Your task to perform on an android device: open app "Duolingo: language lessons" (install if not already installed) Image 0: 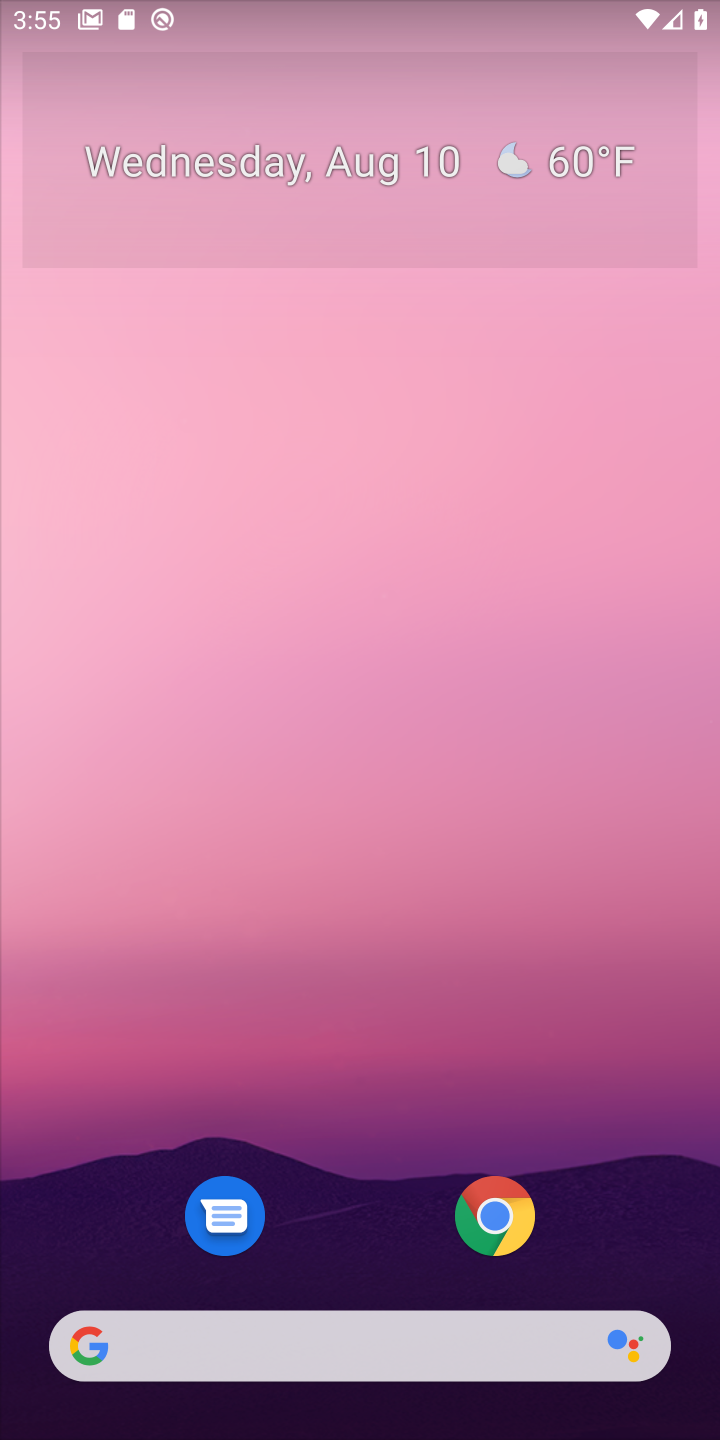
Step 0: drag from (324, 1309) to (672, 1077)
Your task to perform on an android device: open app "Duolingo: language lessons" (install if not already installed) Image 1: 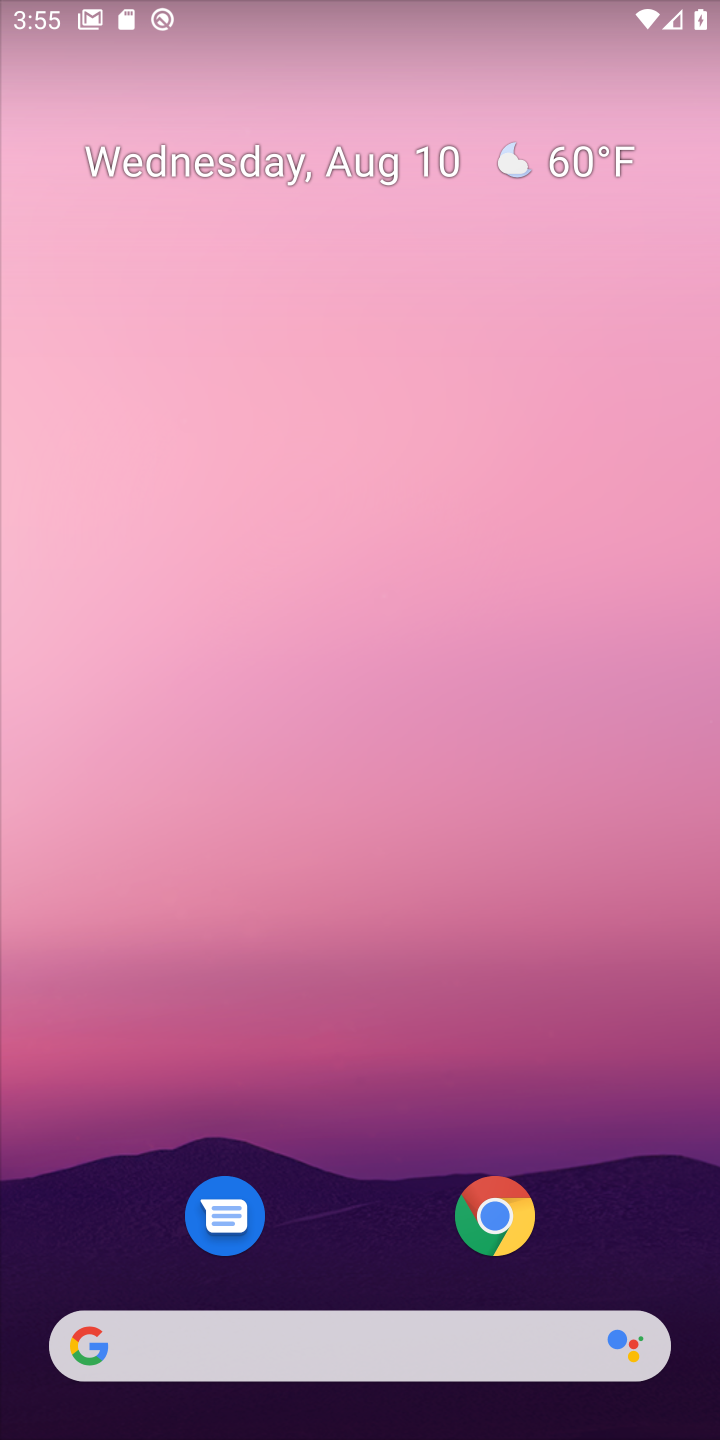
Step 1: drag from (458, 1233) to (405, 2)
Your task to perform on an android device: open app "Duolingo: language lessons" (install if not already installed) Image 2: 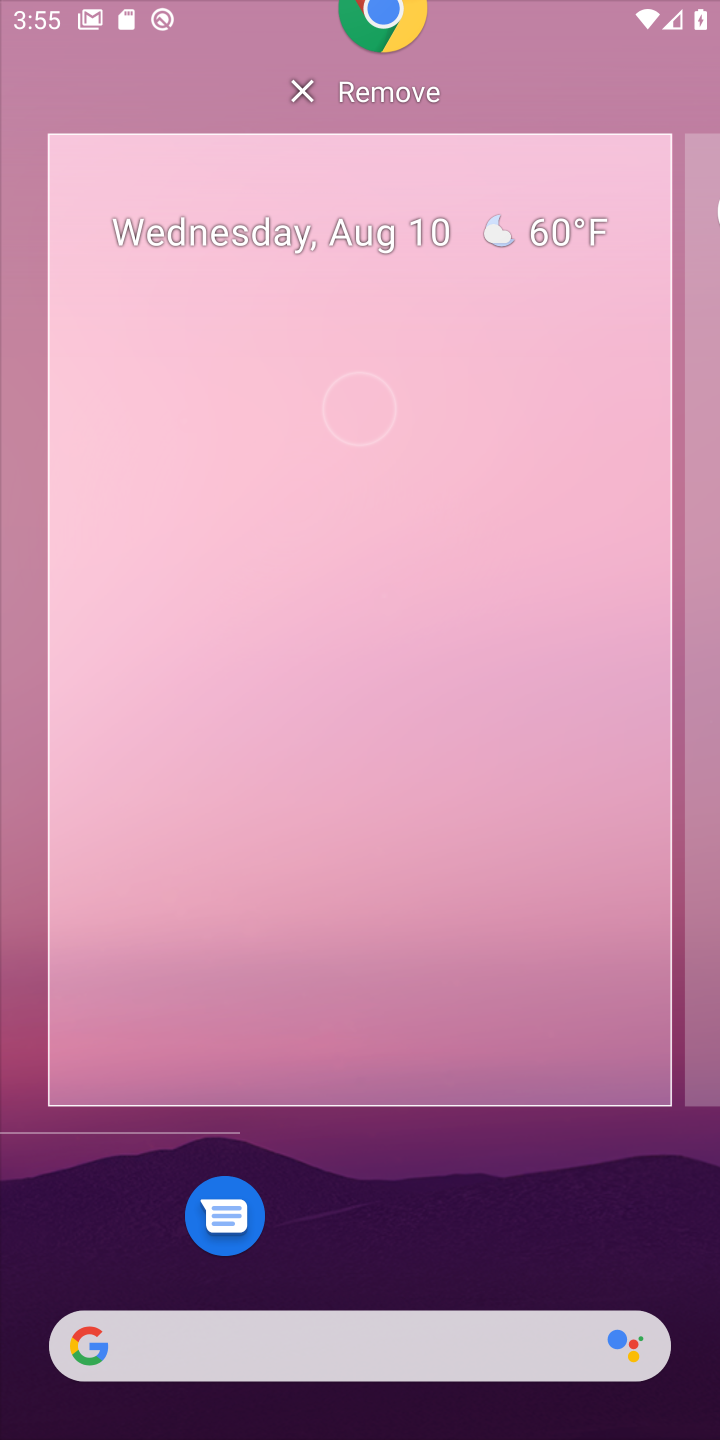
Step 2: click (403, 963)
Your task to perform on an android device: open app "Duolingo: language lessons" (install if not already installed) Image 3: 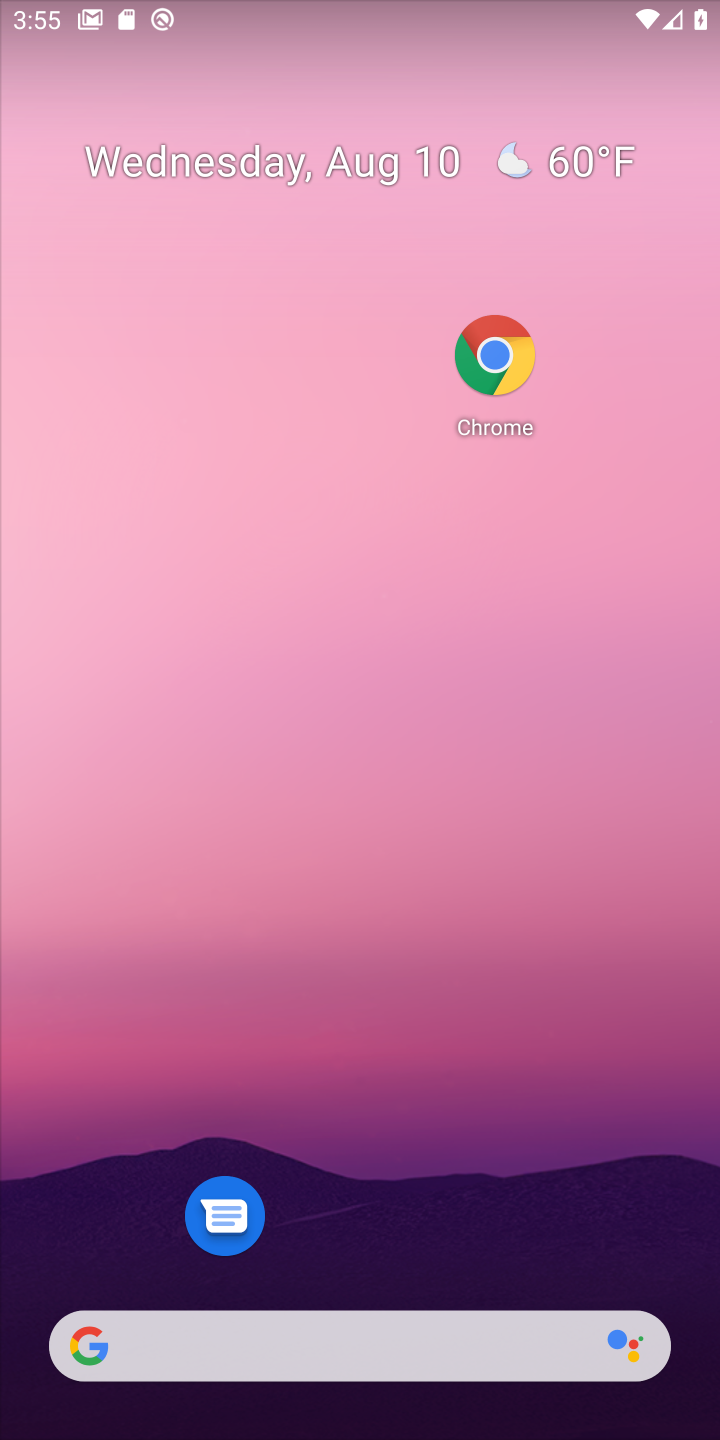
Step 3: drag from (409, 1254) to (431, 24)
Your task to perform on an android device: open app "Duolingo: language lessons" (install if not already installed) Image 4: 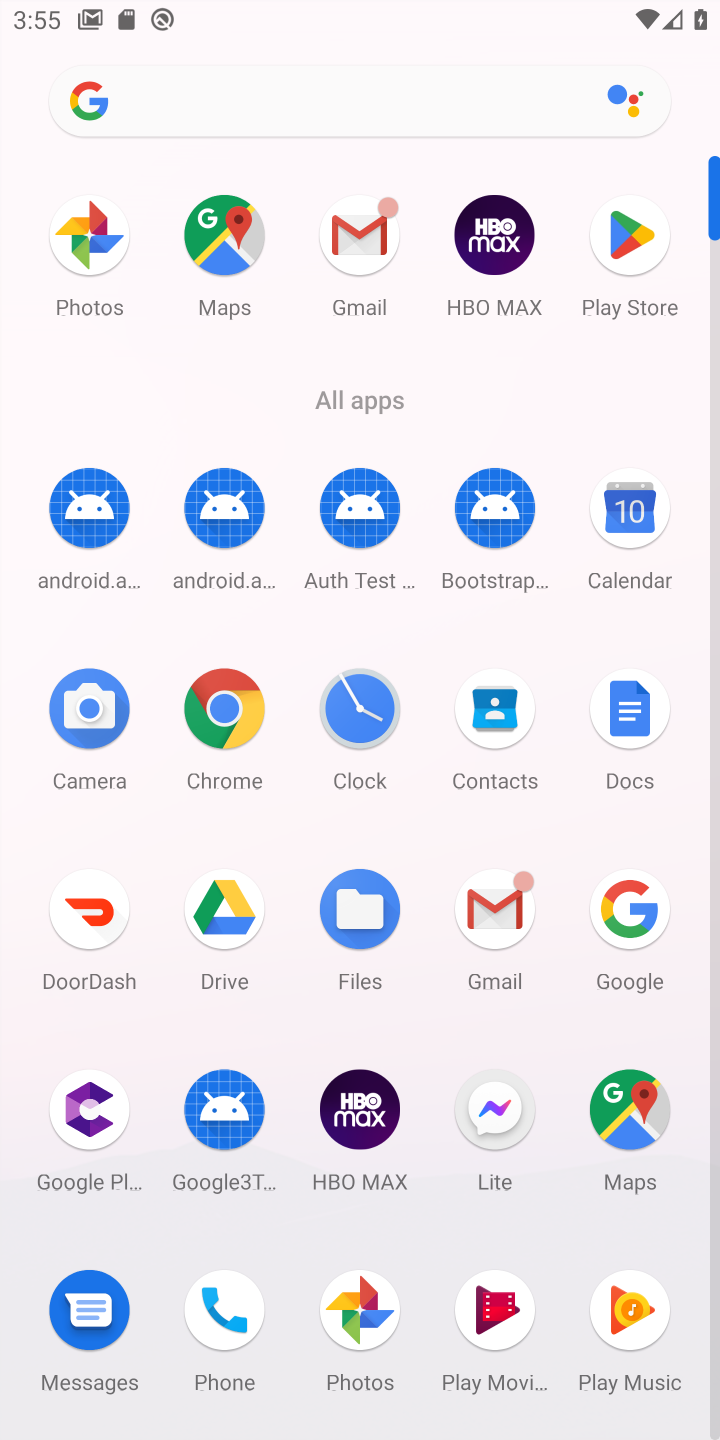
Step 4: click (624, 228)
Your task to perform on an android device: open app "Duolingo: language lessons" (install if not already installed) Image 5: 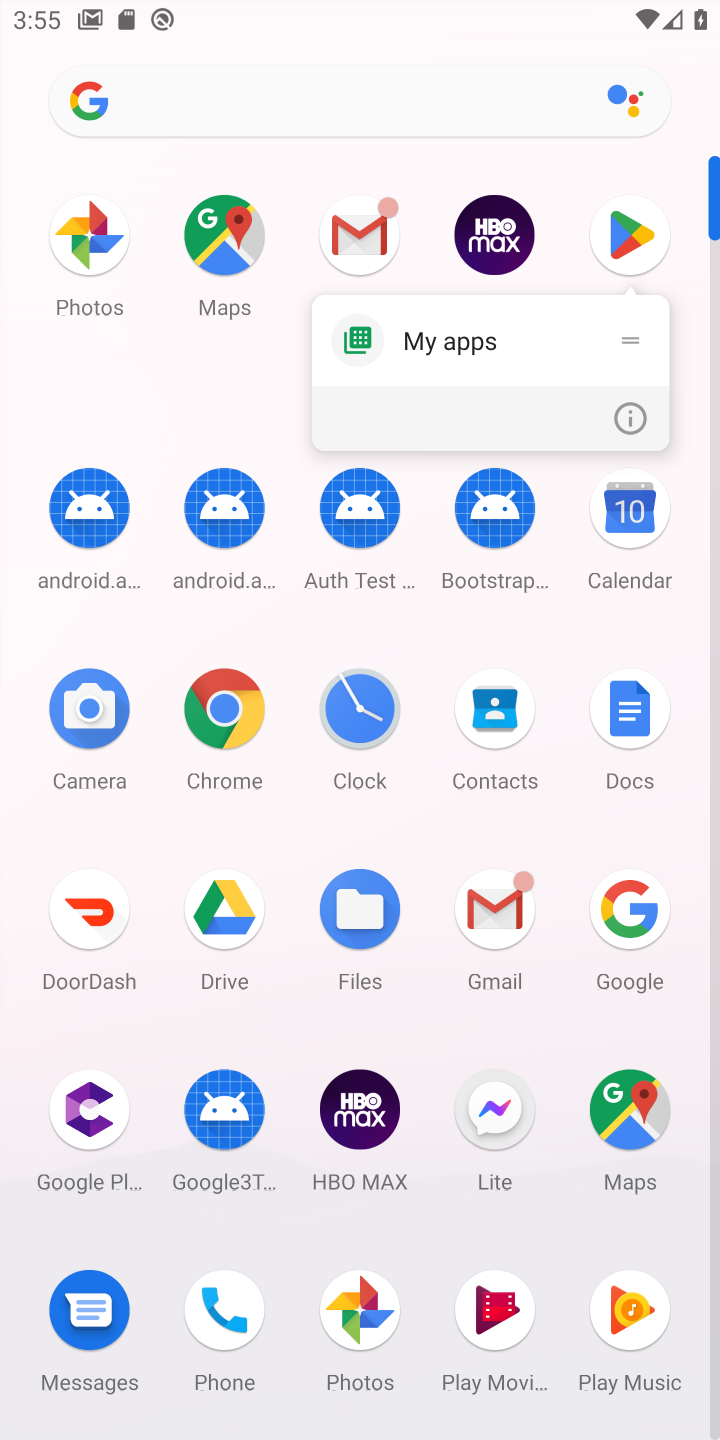
Step 5: click (616, 216)
Your task to perform on an android device: open app "Duolingo: language lessons" (install if not already installed) Image 6: 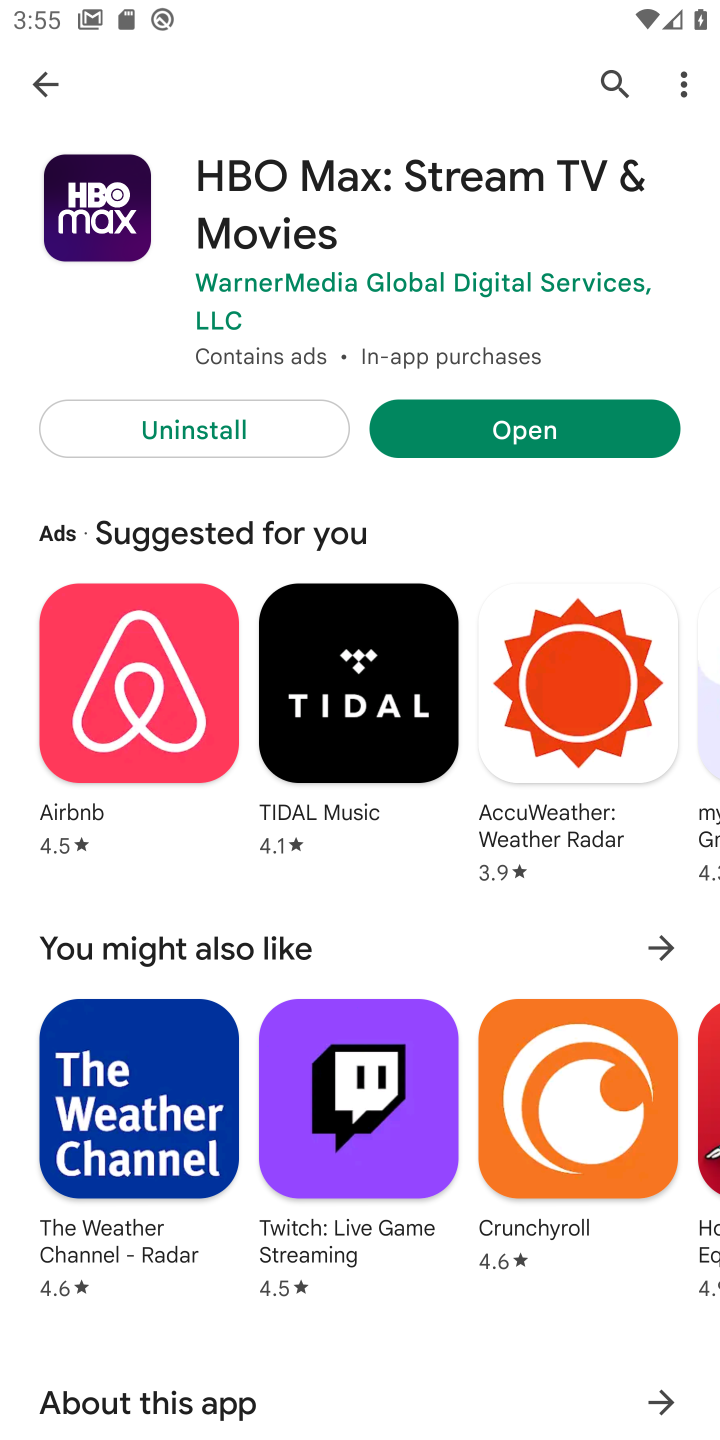
Step 6: click (41, 83)
Your task to perform on an android device: open app "Duolingo: language lessons" (install if not already installed) Image 7: 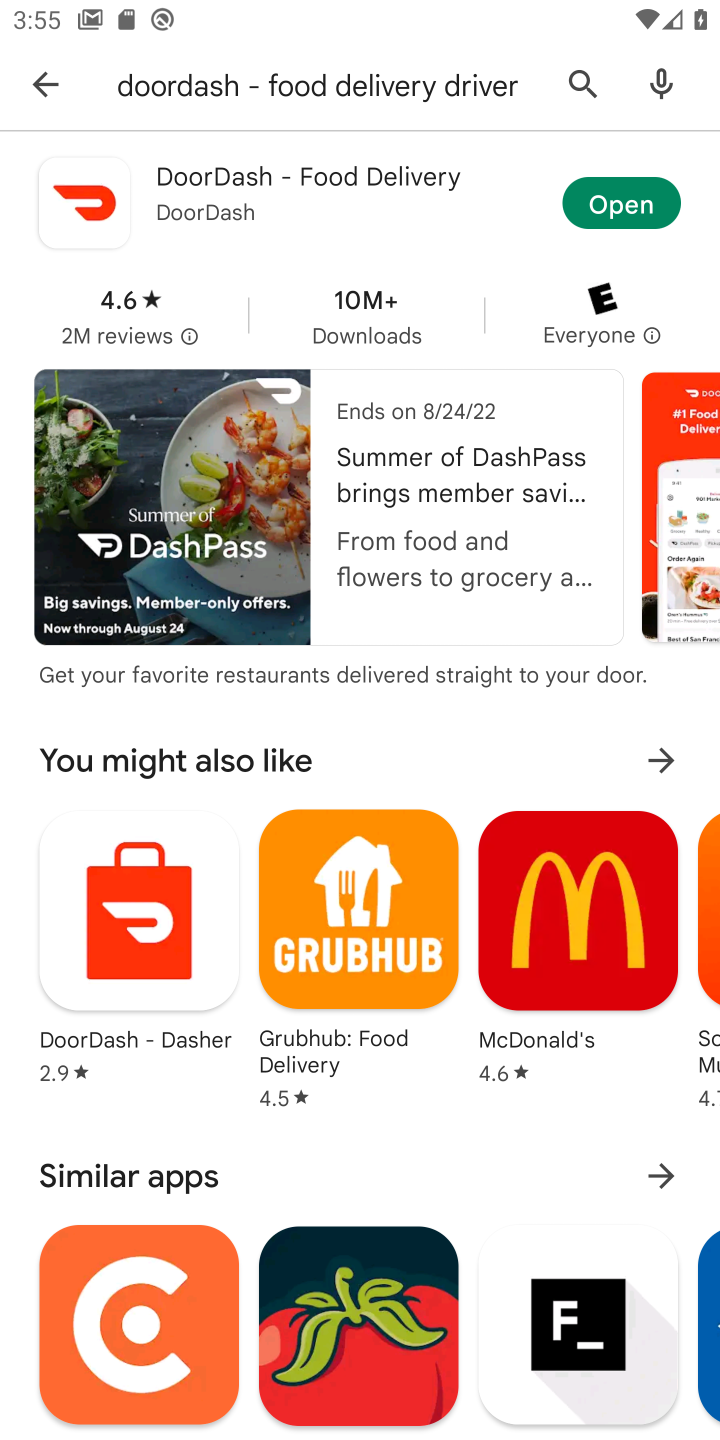
Step 7: click (571, 65)
Your task to perform on an android device: open app "Duolingo: language lessons" (install if not already installed) Image 8: 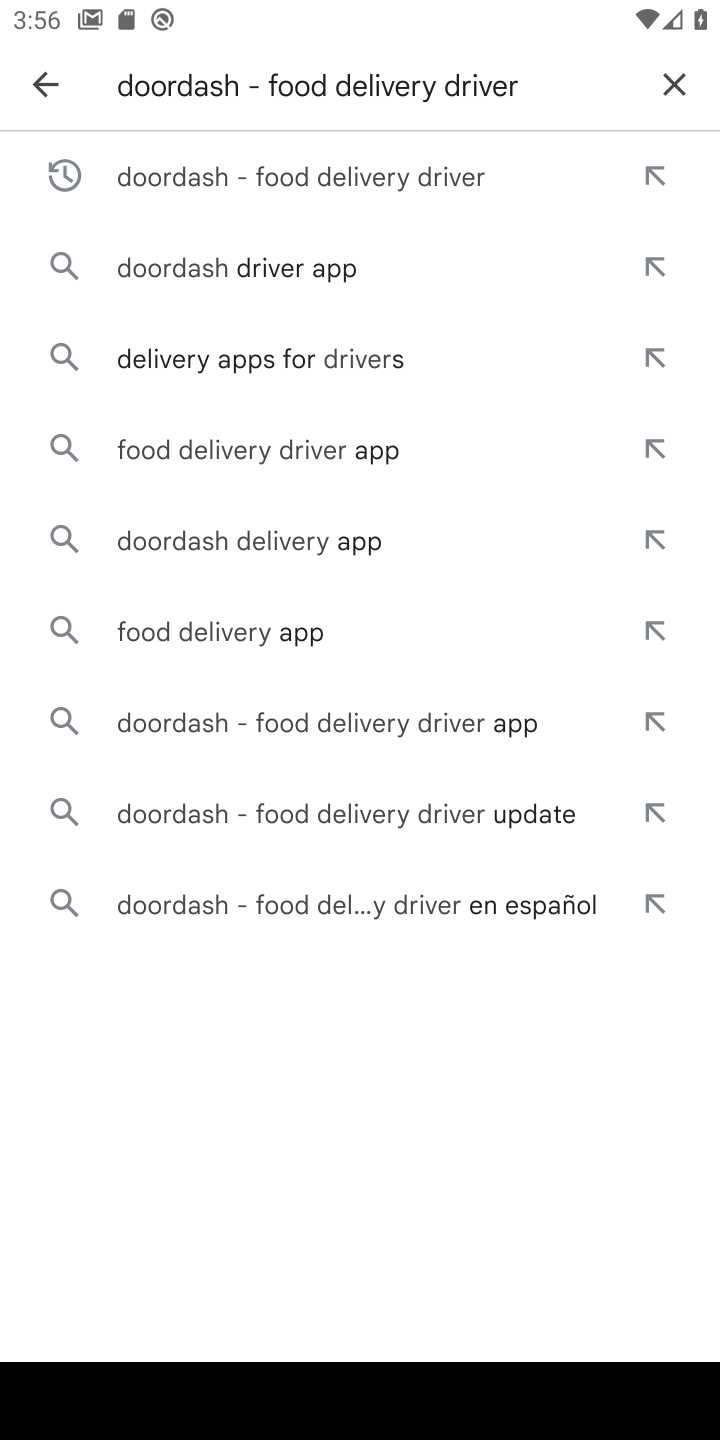
Step 8: click (669, 67)
Your task to perform on an android device: open app "Duolingo: language lessons" (install if not already installed) Image 9: 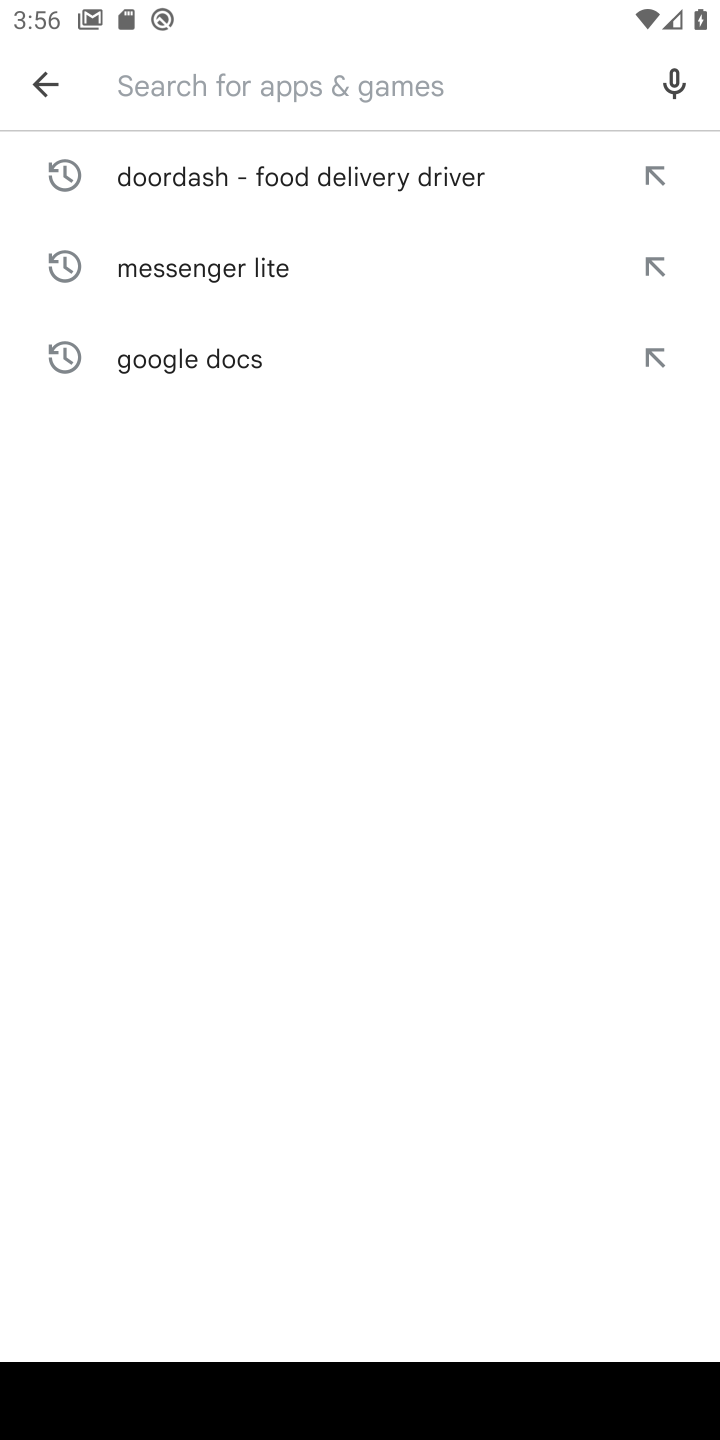
Step 9: type "Duolingo: language lessons"
Your task to perform on an android device: open app "Duolingo: language lessons" (install if not already installed) Image 10: 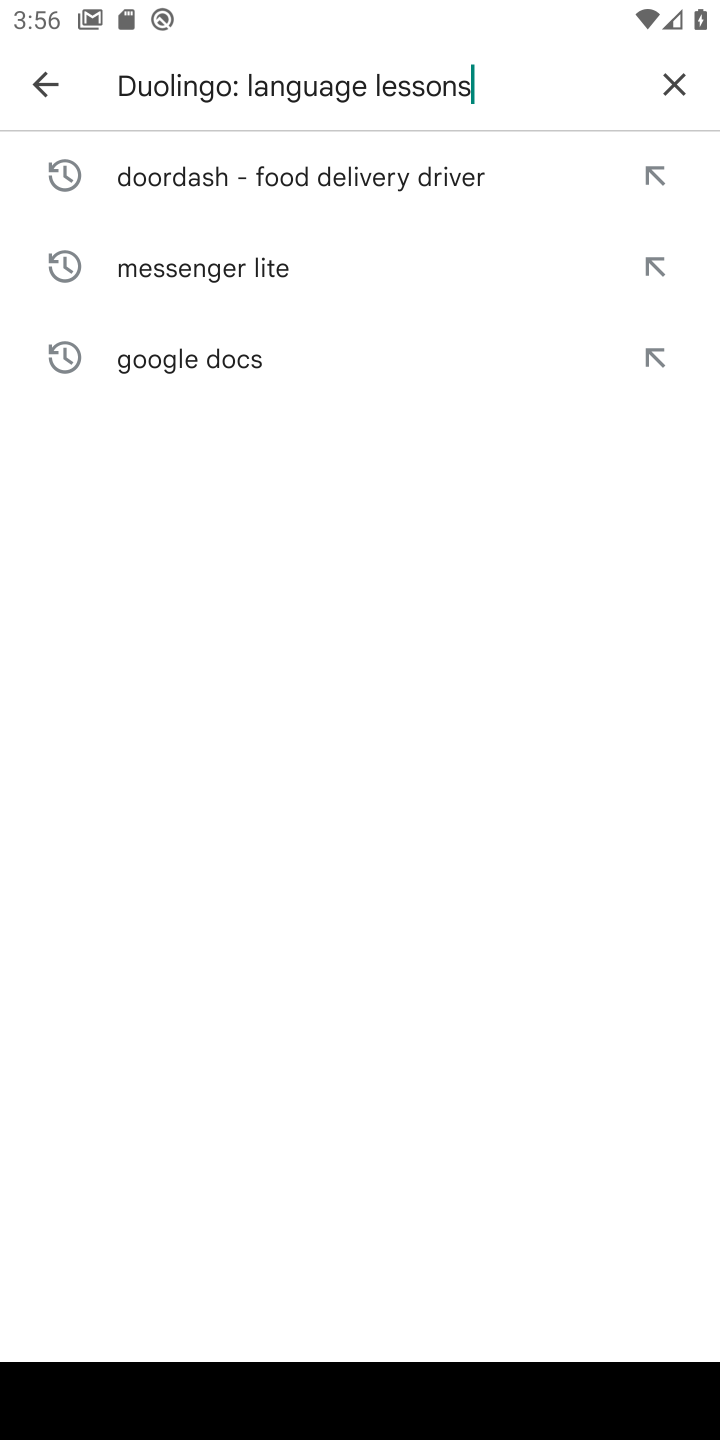
Step 10: type ""
Your task to perform on an android device: open app "Duolingo: language lessons" (install if not already installed) Image 11: 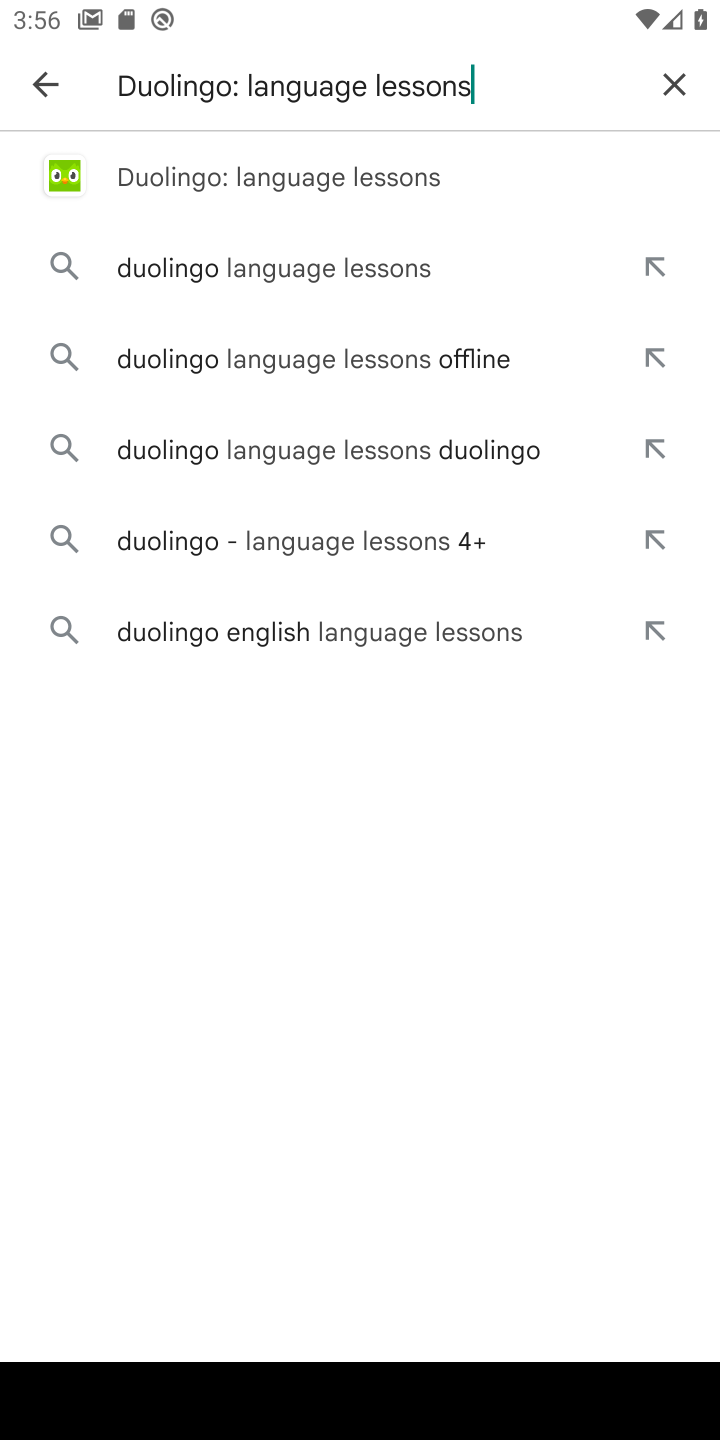
Step 11: click (308, 156)
Your task to perform on an android device: open app "Duolingo: language lessons" (install if not already installed) Image 12: 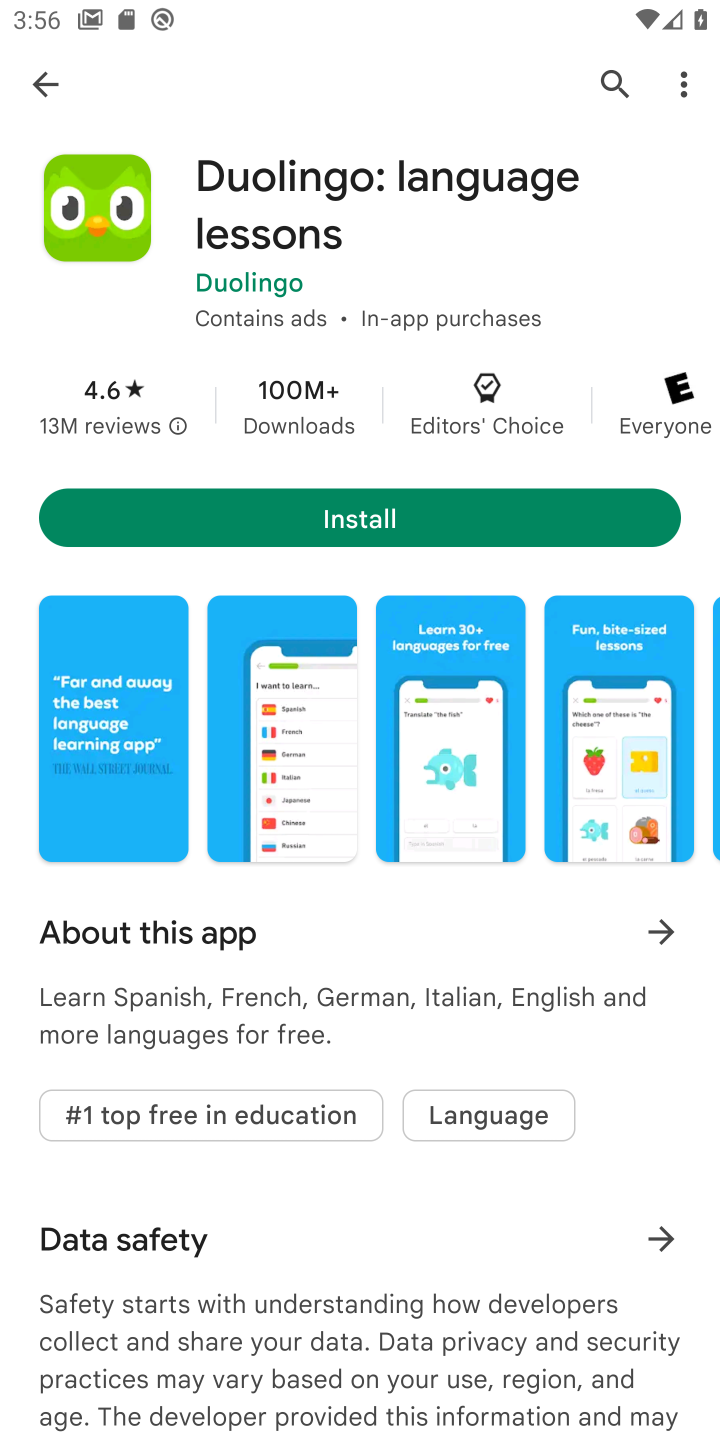
Step 12: click (458, 538)
Your task to perform on an android device: open app "Duolingo: language lessons" (install if not already installed) Image 13: 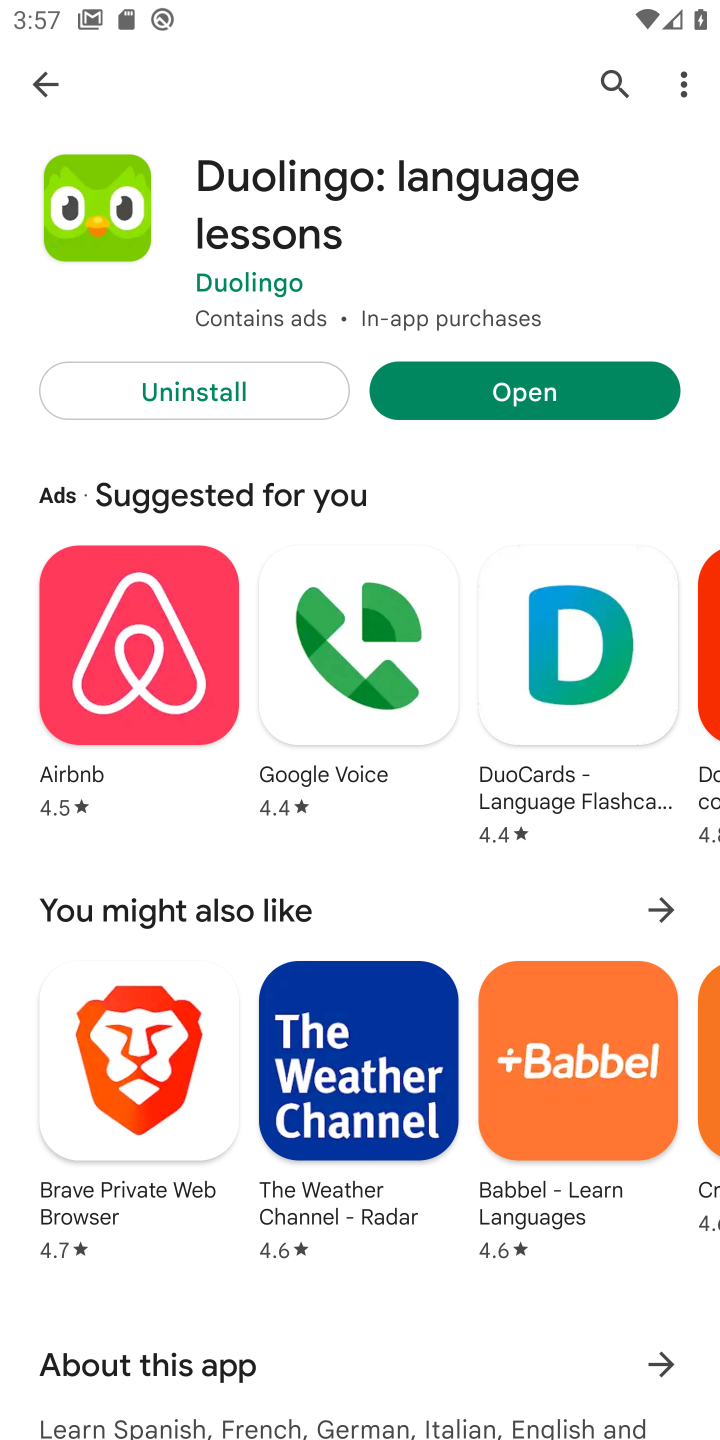
Step 13: click (560, 364)
Your task to perform on an android device: open app "Duolingo: language lessons" (install if not already installed) Image 14: 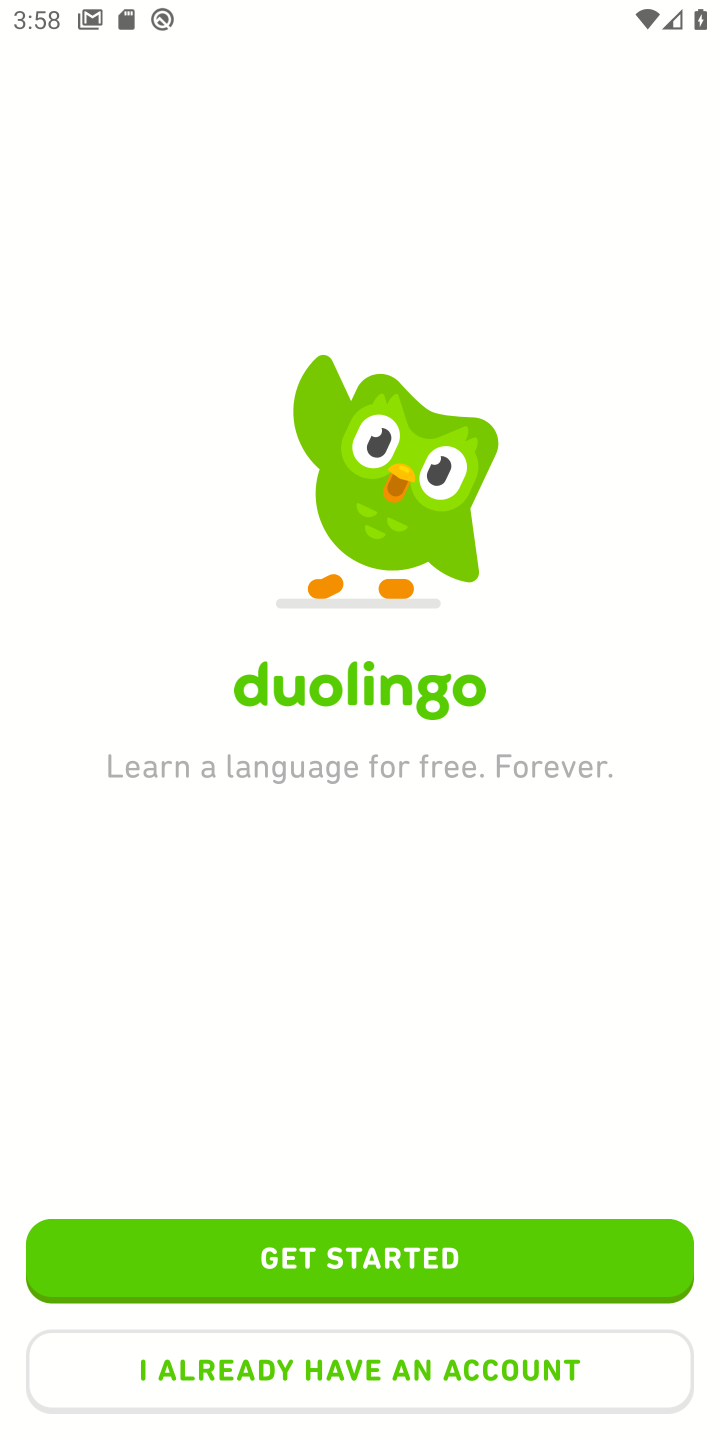
Step 14: task complete